Your task to perform on an android device: Open accessibility settings Image 0: 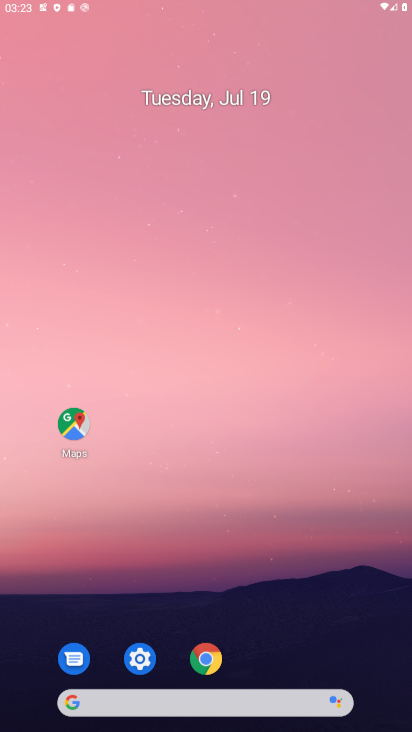
Step 0: press back button
Your task to perform on an android device: Open accessibility settings Image 1: 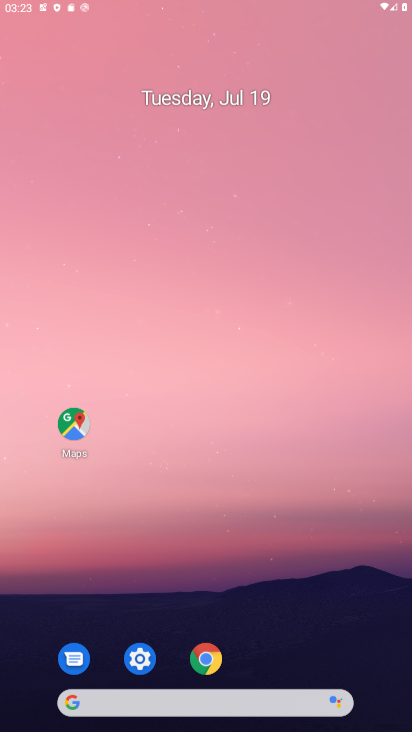
Step 1: click (235, 184)
Your task to perform on an android device: Open accessibility settings Image 2: 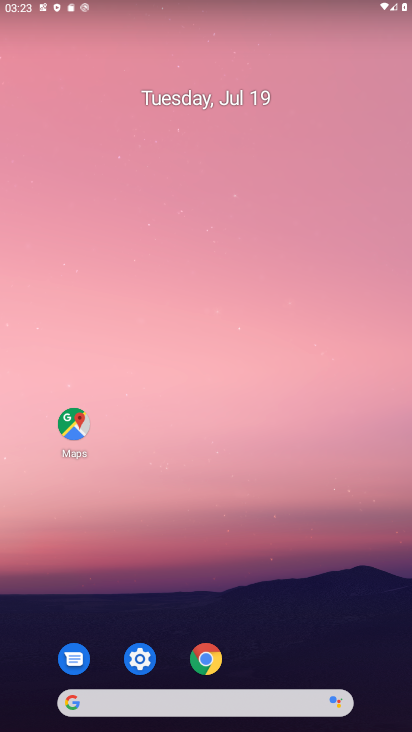
Step 2: drag from (208, 621) to (138, 178)
Your task to perform on an android device: Open accessibility settings Image 3: 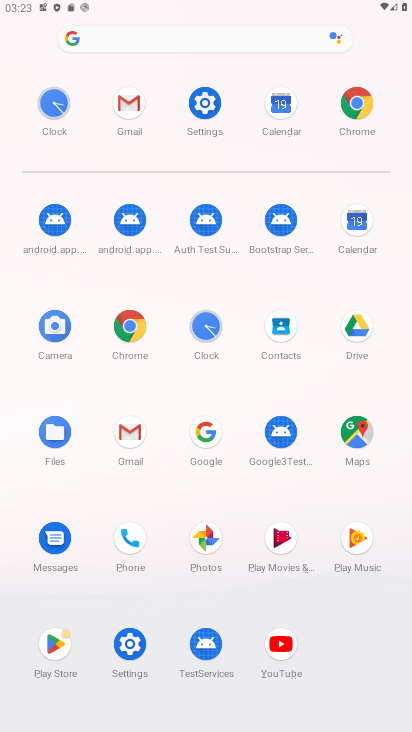
Step 3: click (131, 641)
Your task to perform on an android device: Open accessibility settings Image 4: 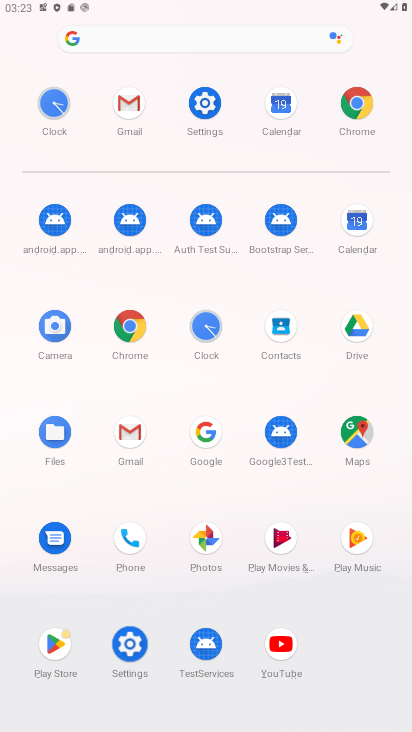
Step 4: click (132, 641)
Your task to perform on an android device: Open accessibility settings Image 5: 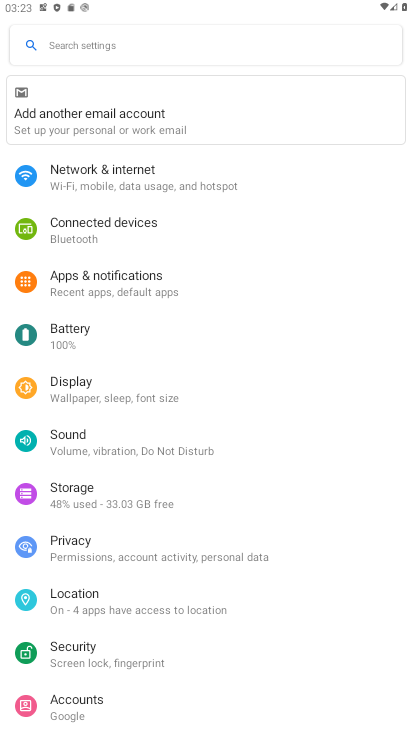
Step 5: drag from (153, 521) to (133, 198)
Your task to perform on an android device: Open accessibility settings Image 6: 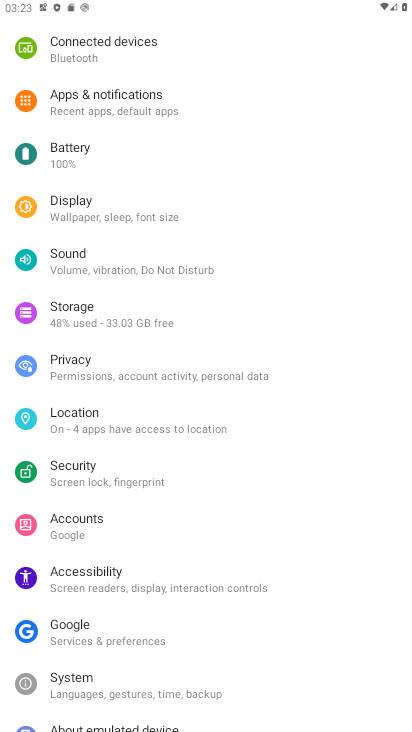
Step 6: drag from (186, 553) to (174, 274)
Your task to perform on an android device: Open accessibility settings Image 7: 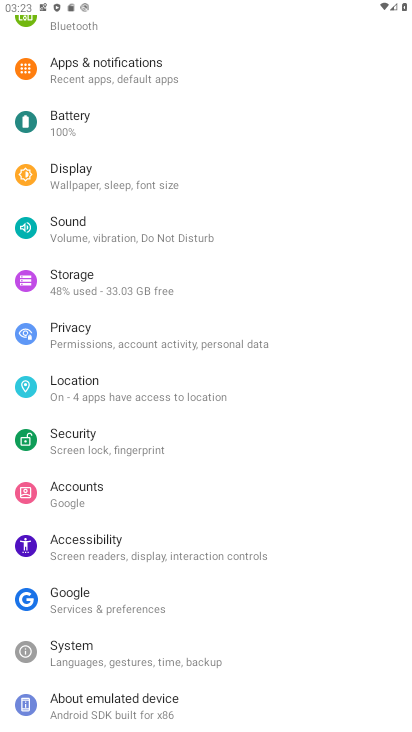
Step 7: click (95, 561)
Your task to perform on an android device: Open accessibility settings Image 8: 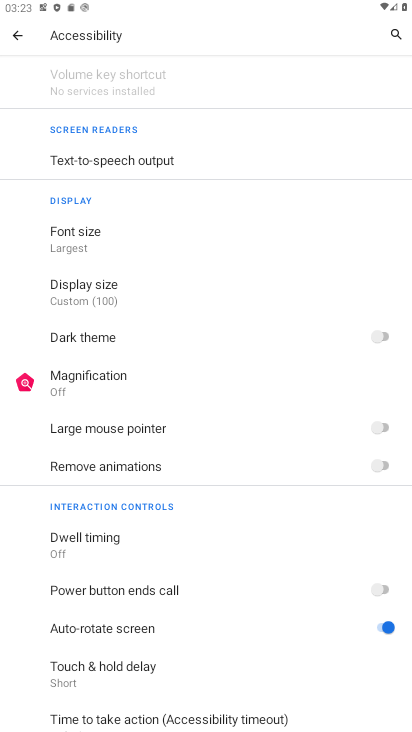
Step 8: task complete